Your task to perform on an android device: Search for pizza restaurants on Maps Image 0: 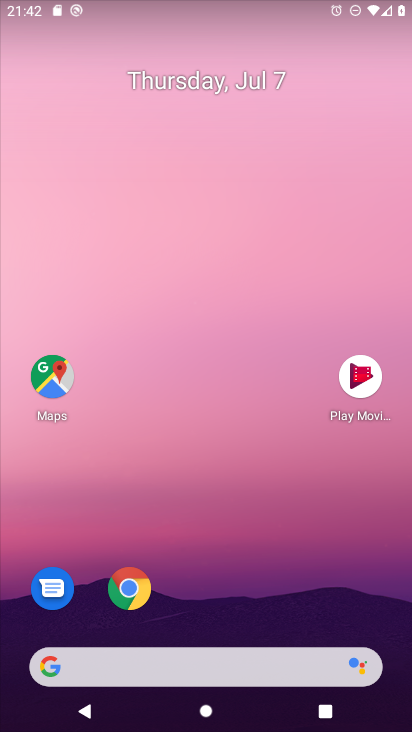
Step 0: drag from (185, 613) to (188, 220)
Your task to perform on an android device: Search for pizza restaurants on Maps Image 1: 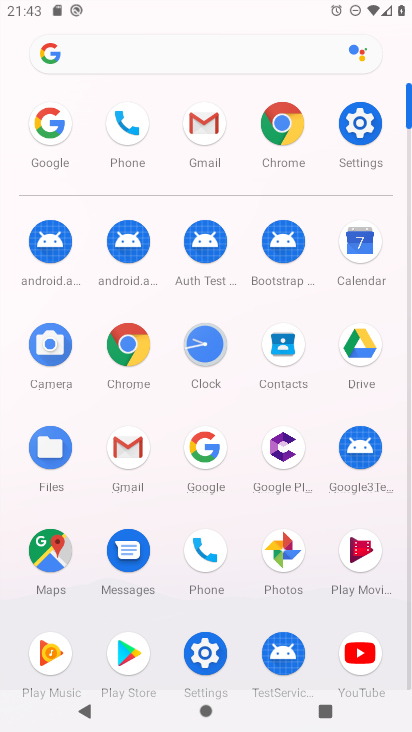
Step 1: click (49, 544)
Your task to perform on an android device: Search for pizza restaurants on Maps Image 2: 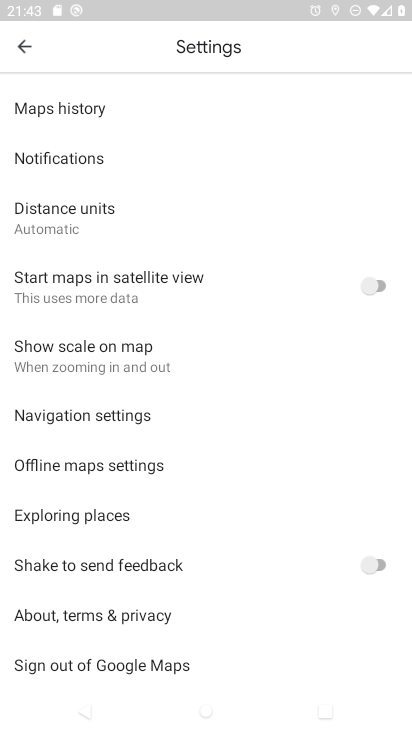
Step 2: click (20, 50)
Your task to perform on an android device: Search for pizza restaurants on Maps Image 3: 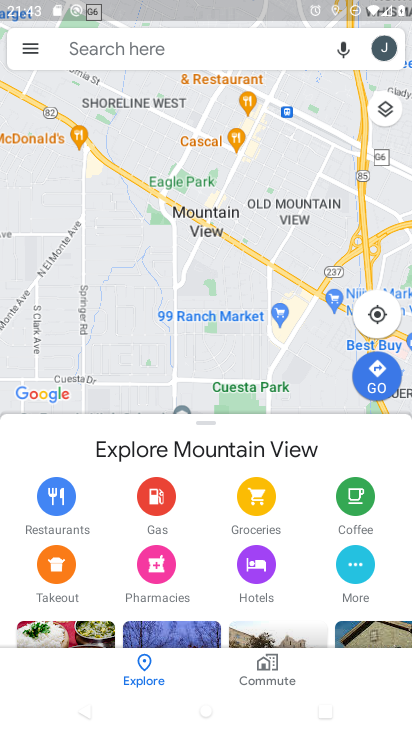
Step 3: click (165, 48)
Your task to perform on an android device: Search for pizza restaurants on Maps Image 4: 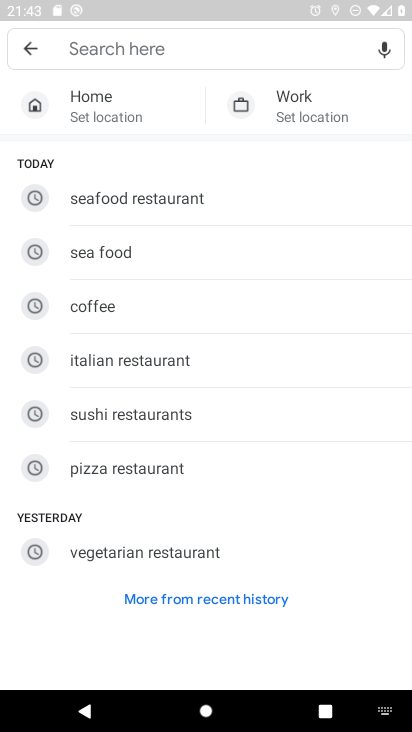
Step 4: type " pizza restaurants "
Your task to perform on an android device: Search for pizza restaurants on Maps Image 5: 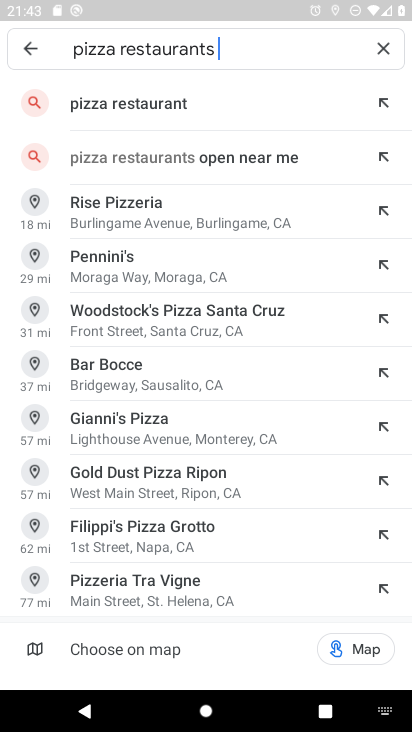
Step 5: click (154, 107)
Your task to perform on an android device: Search for pizza restaurants on Maps Image 6: 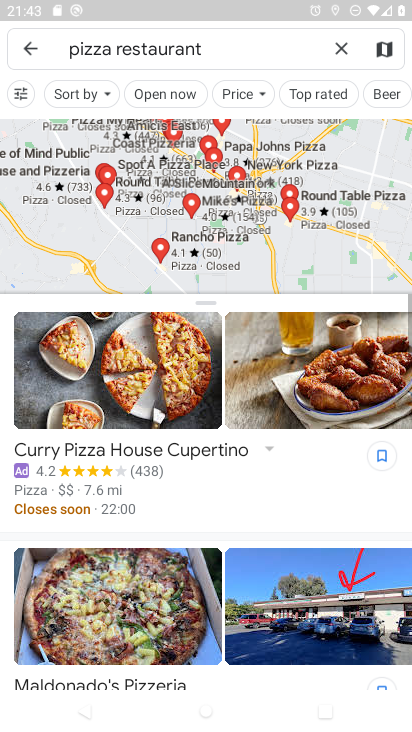
Step 6: task complete